Your task to perform on an android device: change keyboard looks Image 0: 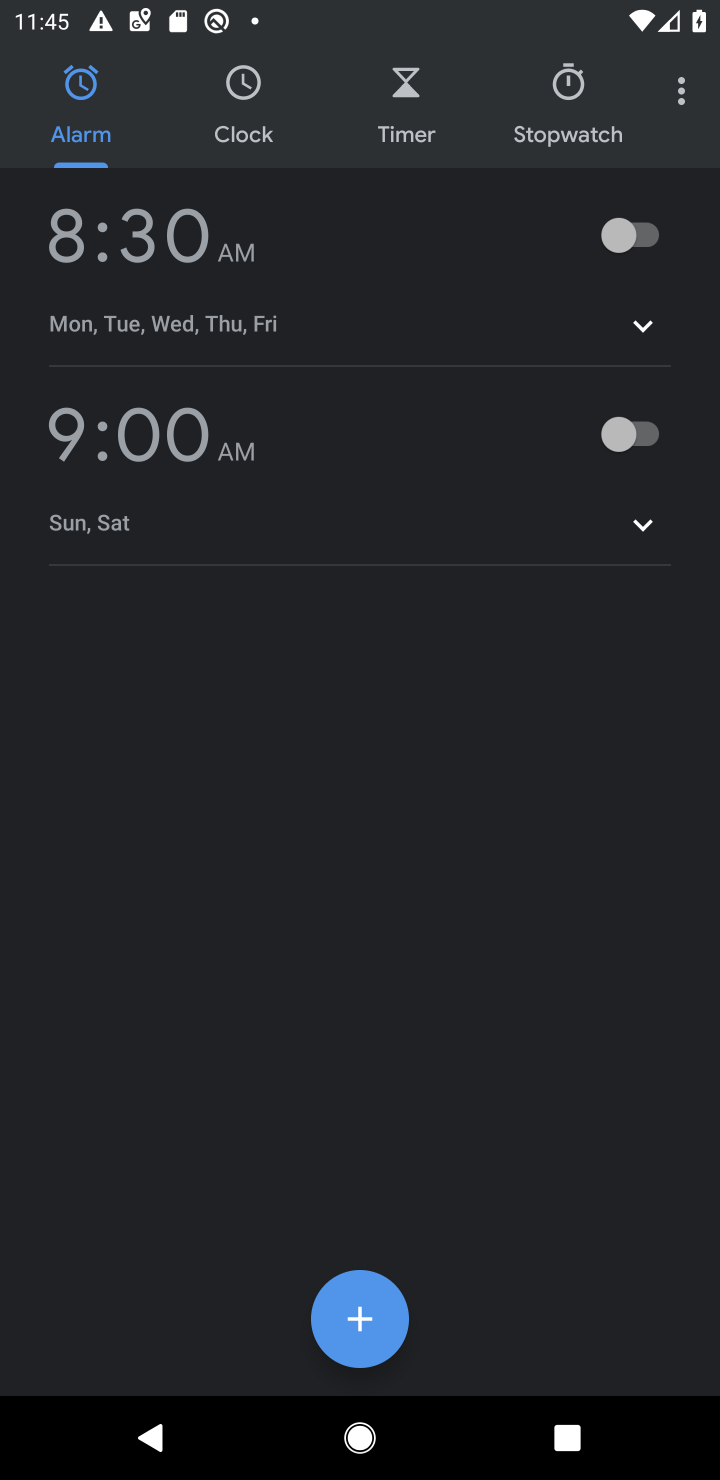
Step 0: press home button
Your task to perform on an android device: change keyboard looks Image 1: 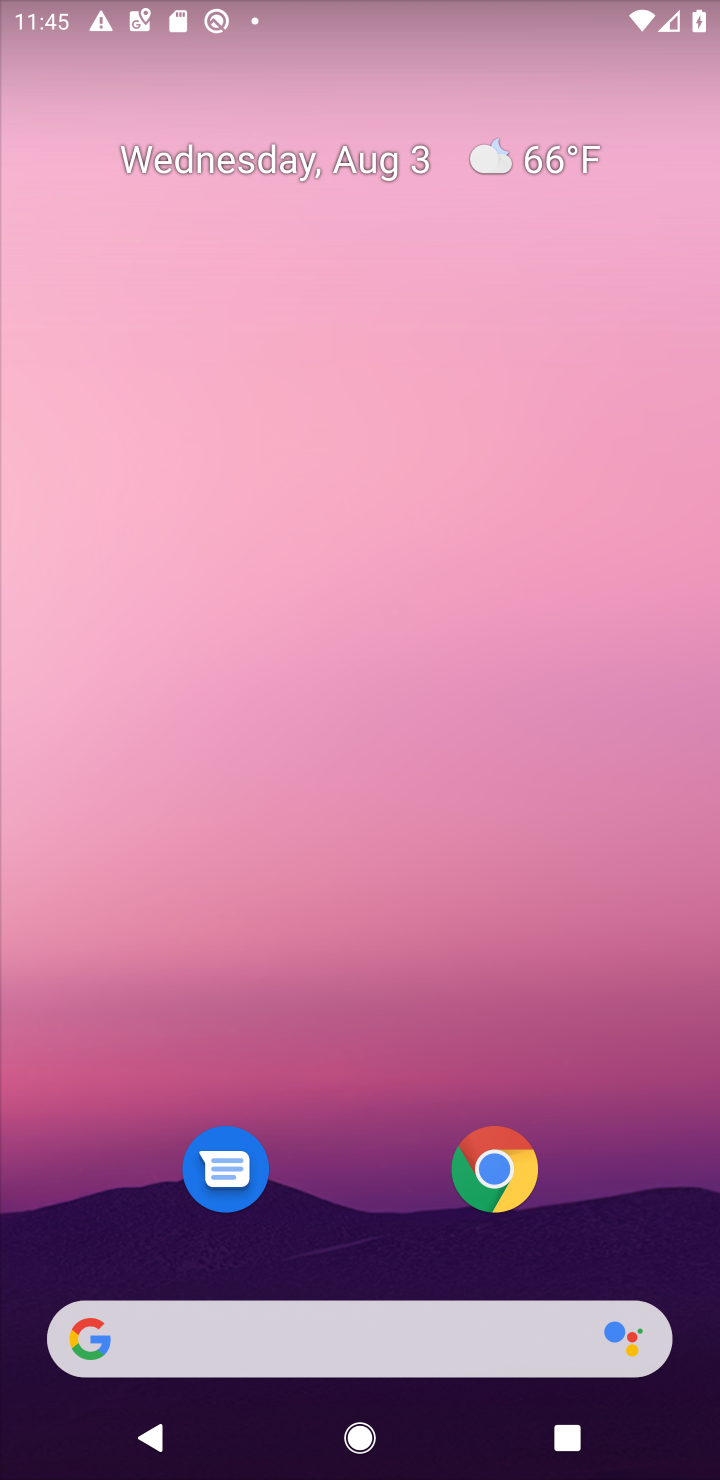
Step 1: drag from (593, 1279) to (628, 0)
Your task to perform on an android device: change keyboard looks Image 2: 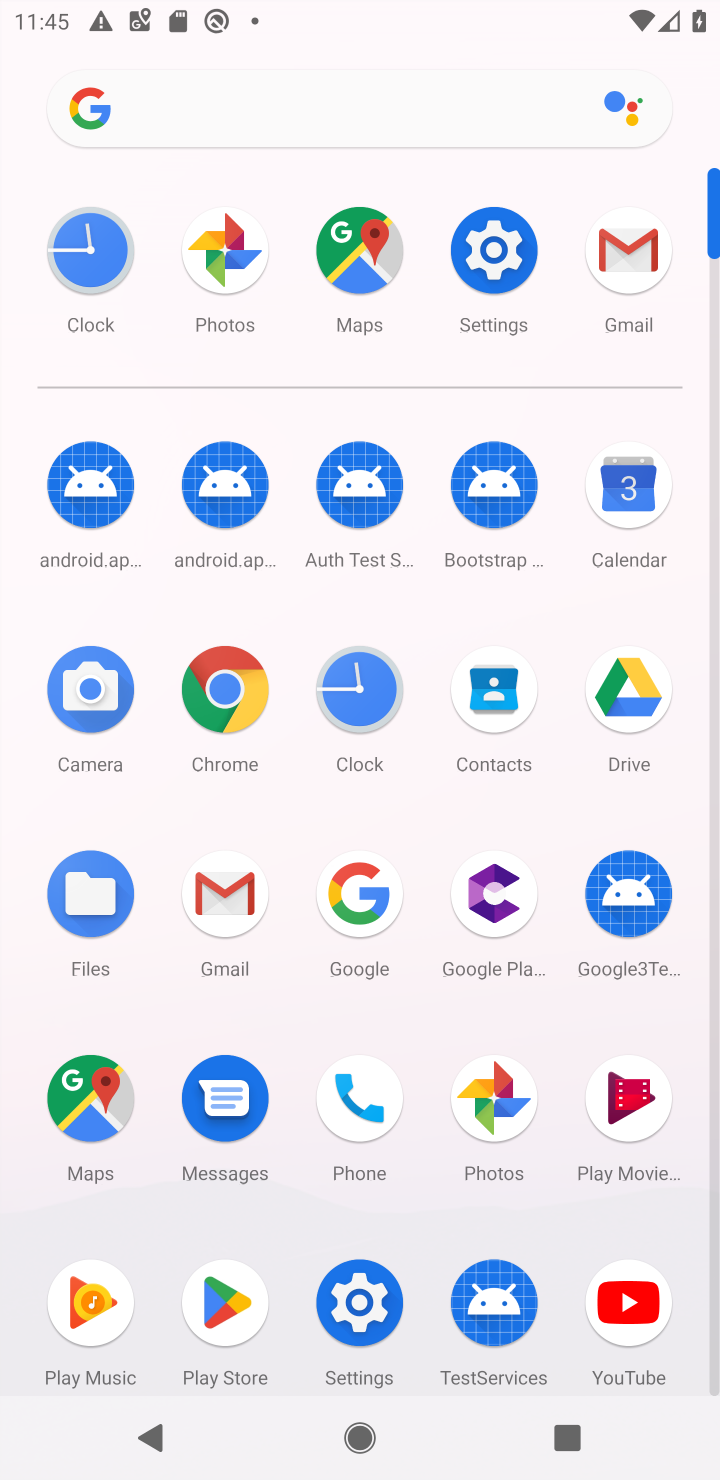
Step 2: click (491, 263)
Your task to perform on an android device: change keyboard looks Image 3: 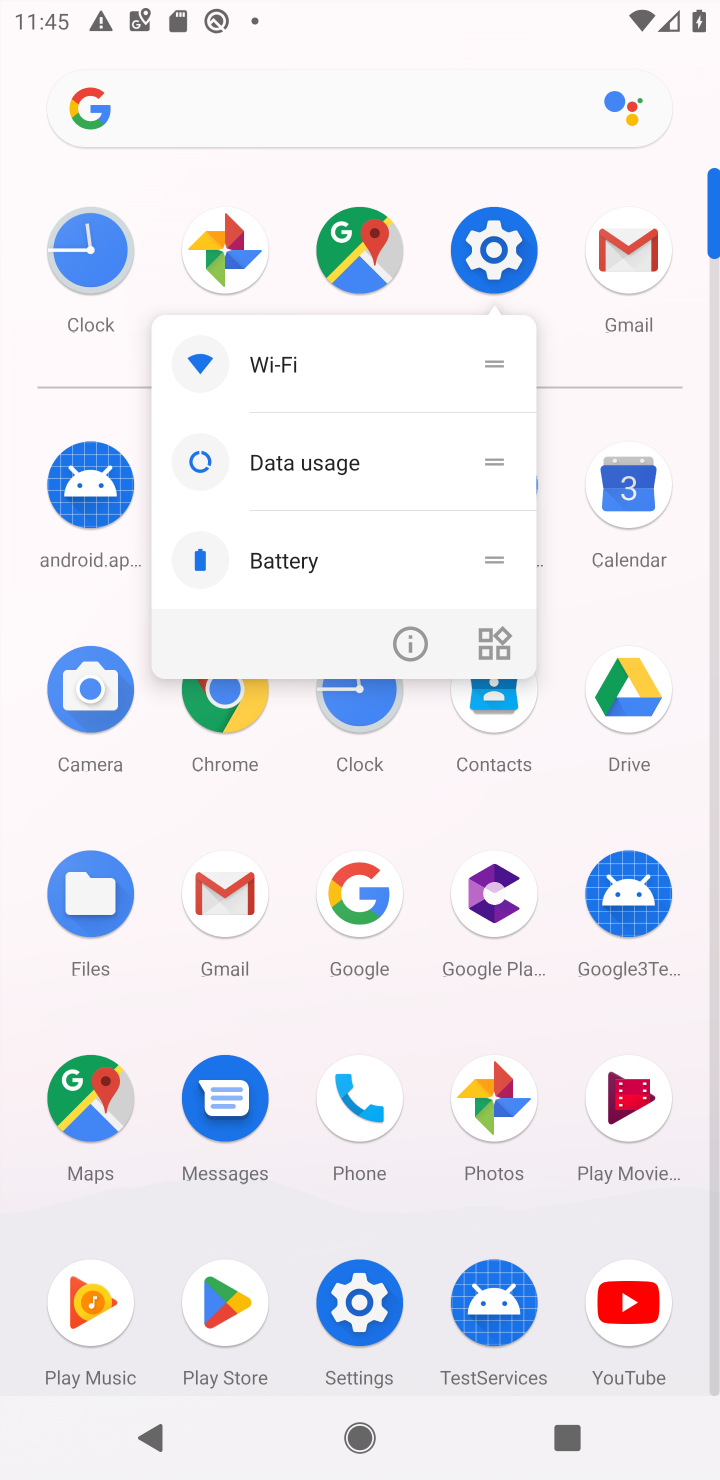
Step 3: click (491, 263)
Your task to perform on an android device: change keyboard looks Image 4: 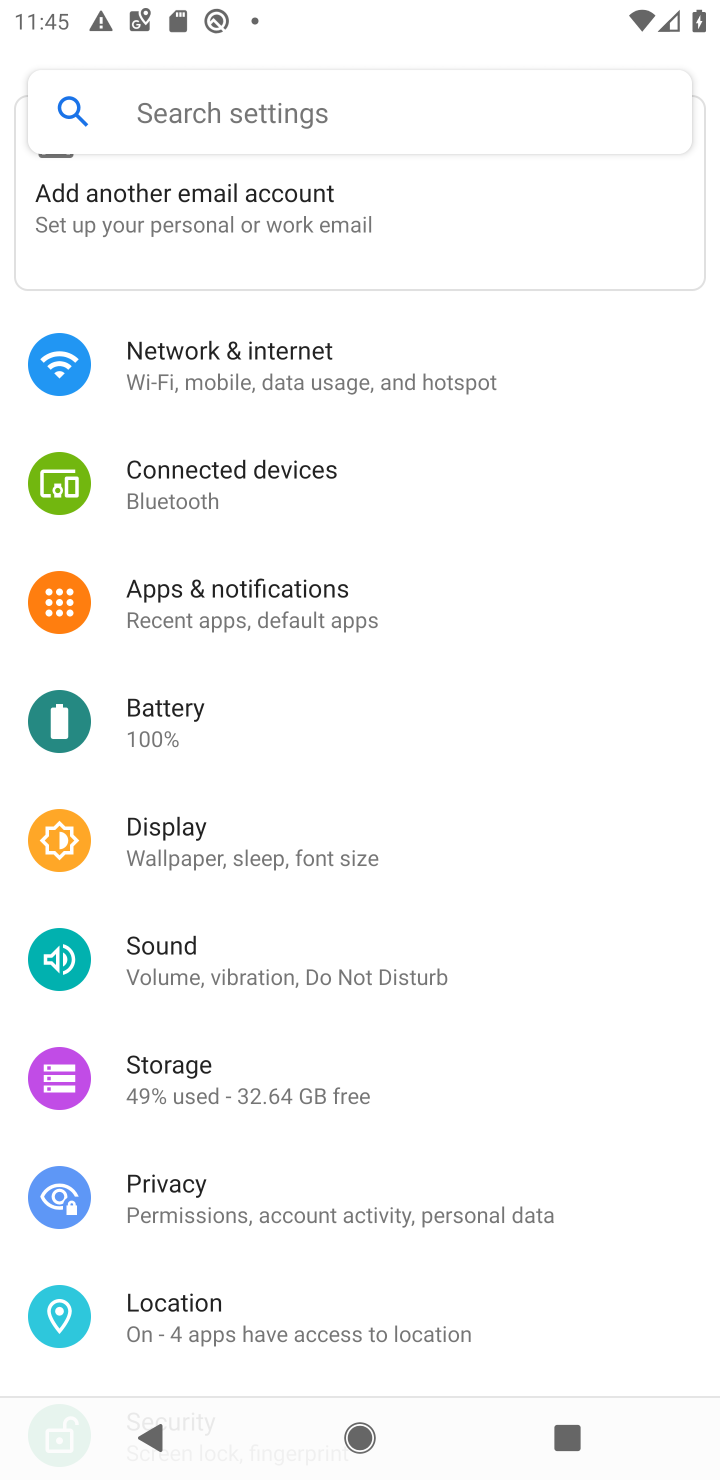
Step 4: drag from (683, 1288) to (714, 388)
Your task to perform on an android device: change keyboard looks Image 5: 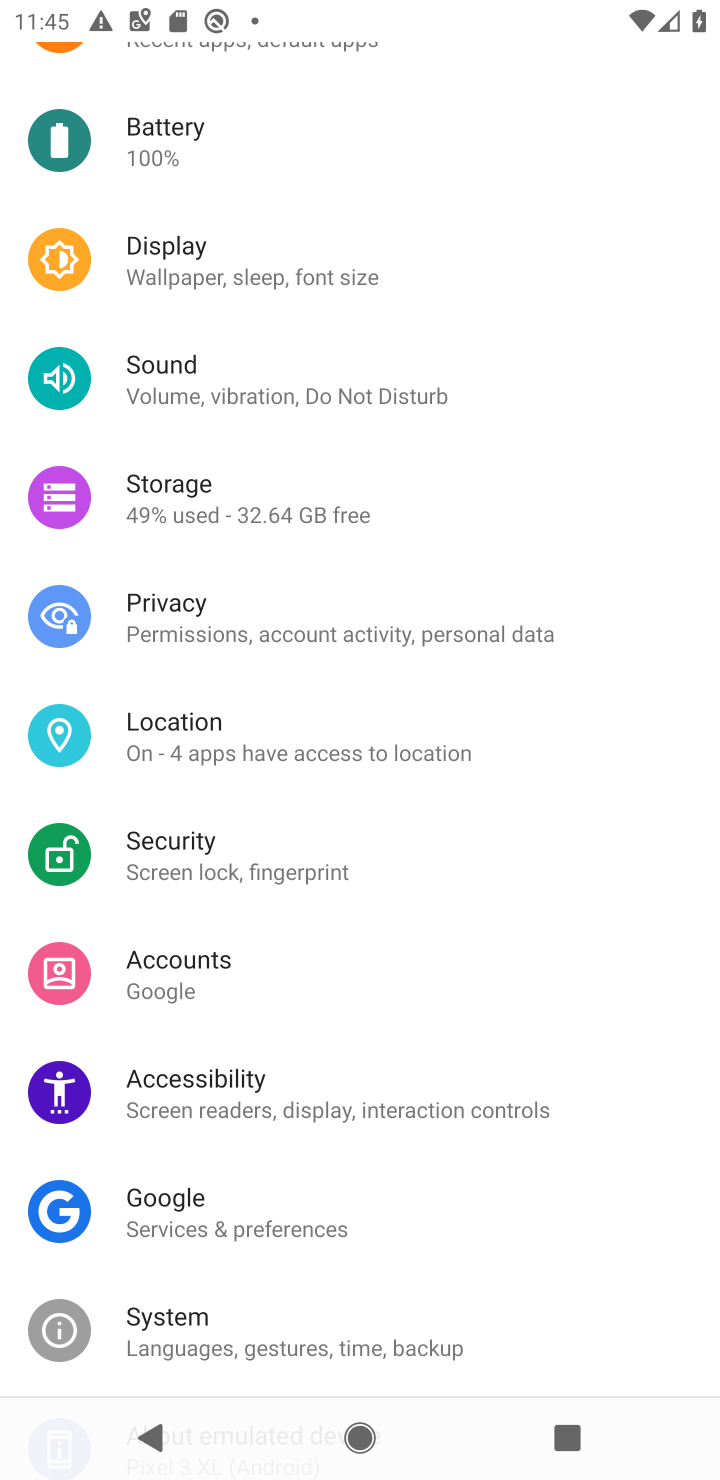
Step 5: click (163, 1348)
Your task to perform on an android device: change keyboard looks Image 6: 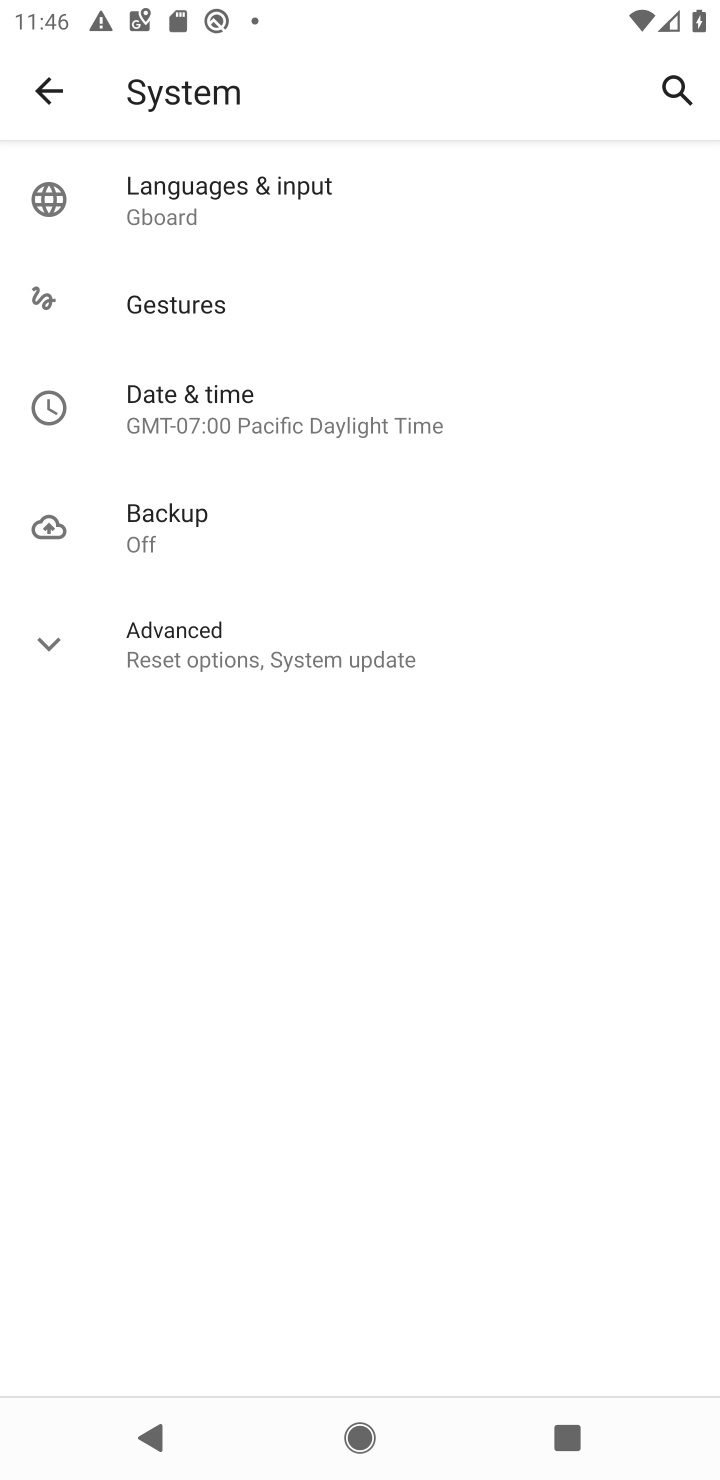
Step 6: click (132, 206)
Your task to perform on an android device: change keyboard looks Image 7: 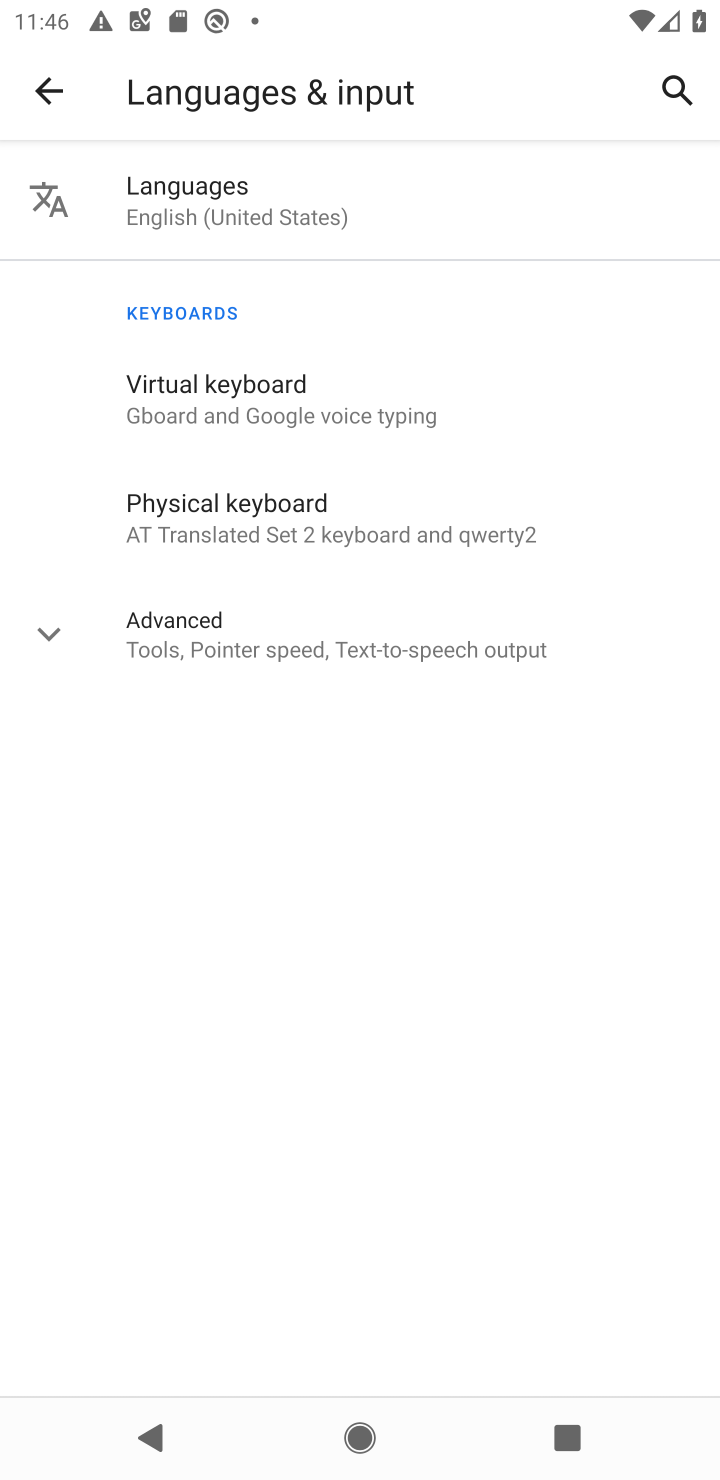
Step 7: click (244, 419)
Your task to perform on an android device: change keyboard looks Image 8: 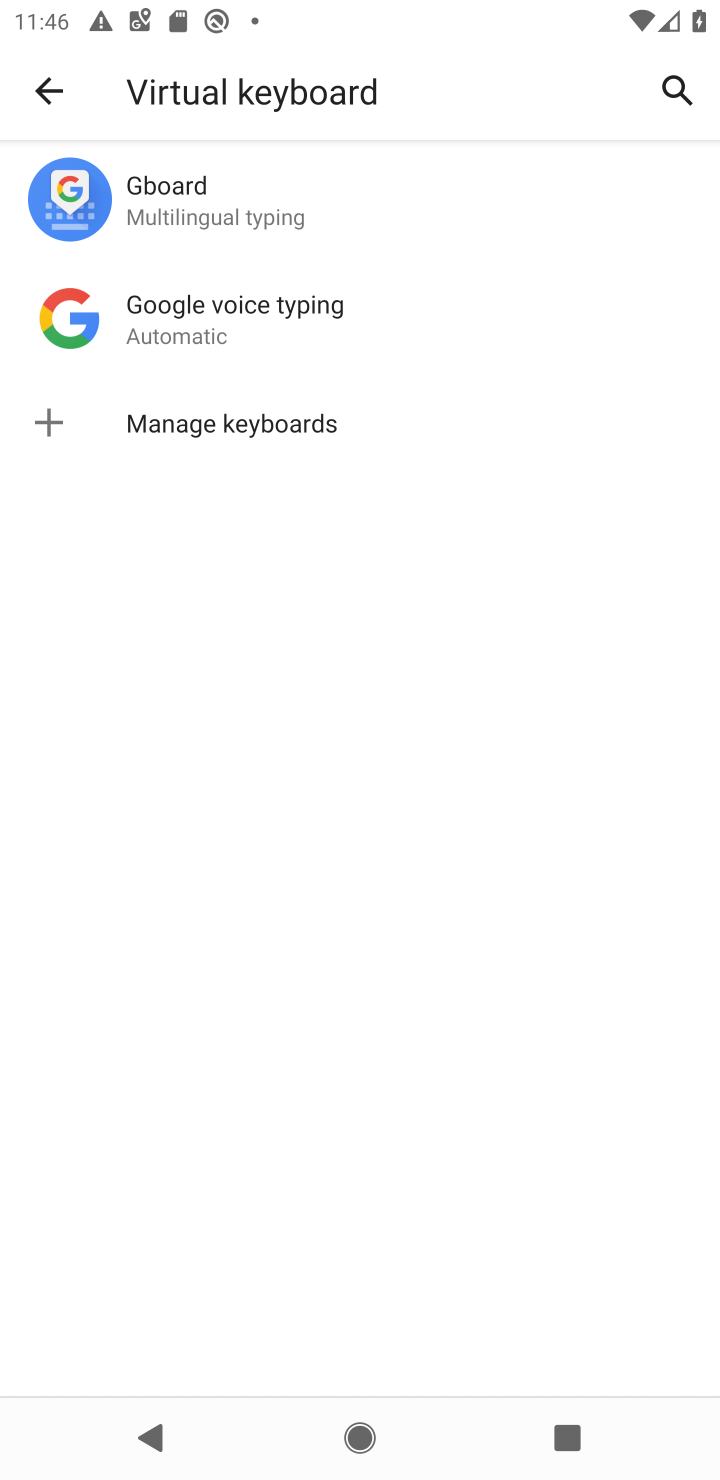
Step 8: click (169, 196)
Your task to perform on an android device: change keyboard looks Image 9: 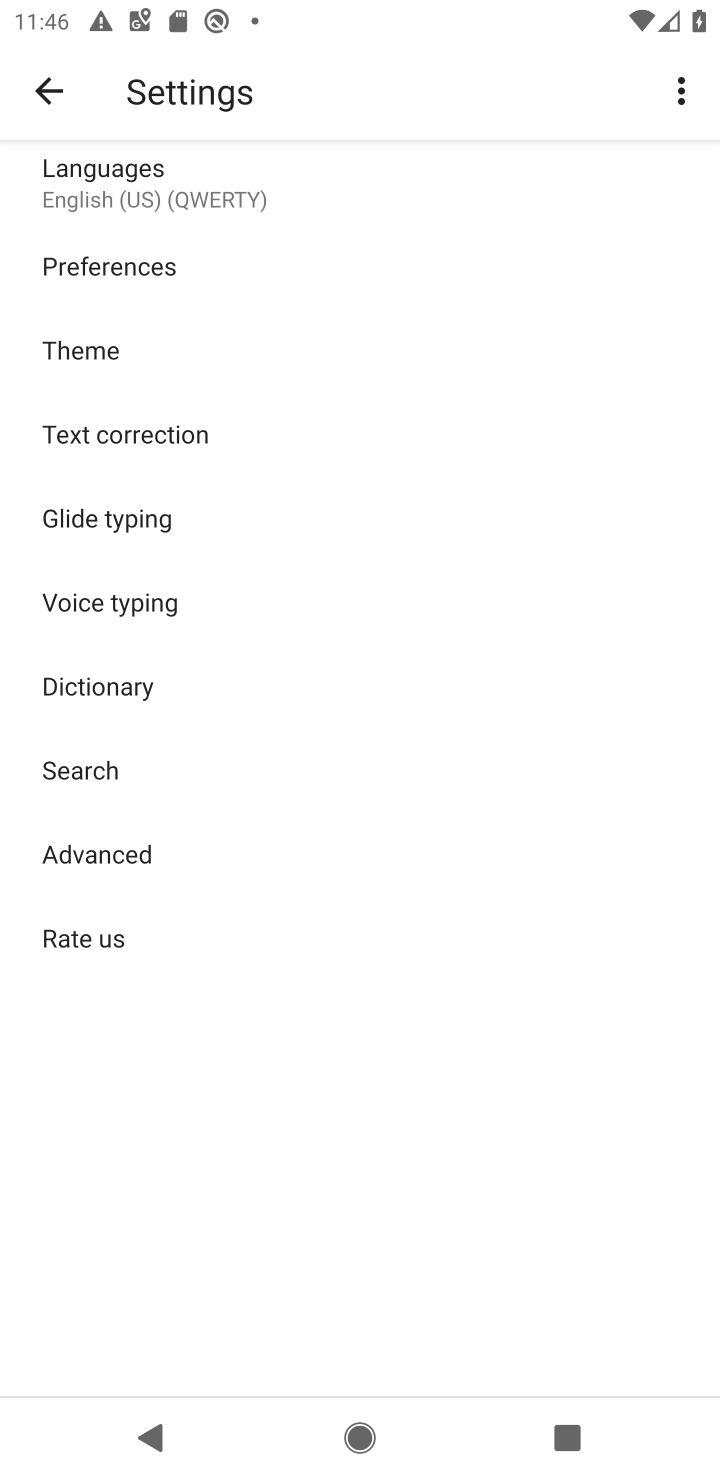
Step 9: click (92, 371)
Your task to perform on an android device: change keyboard looks Image 10: 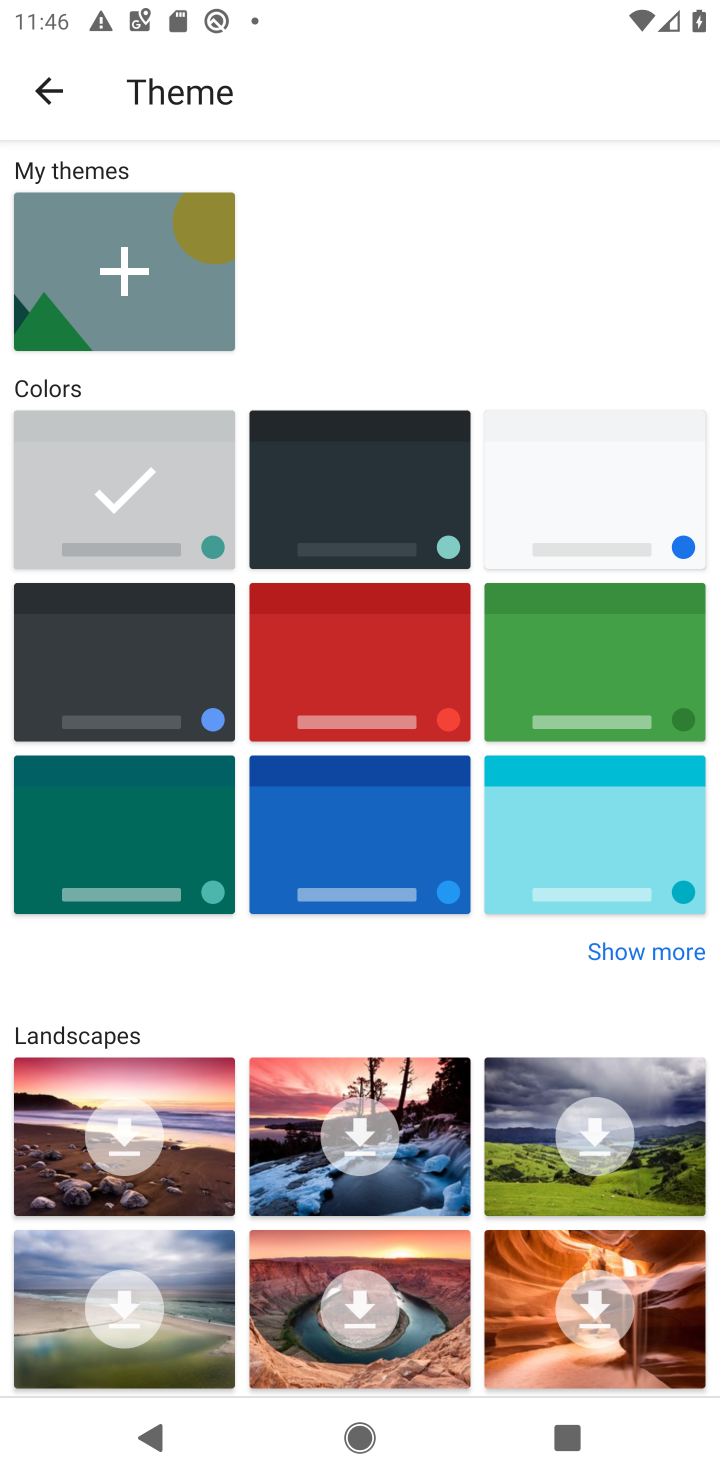
Step 10: click (346, 462)
Your task to perform on an android device: change keyboard looks Image 11: 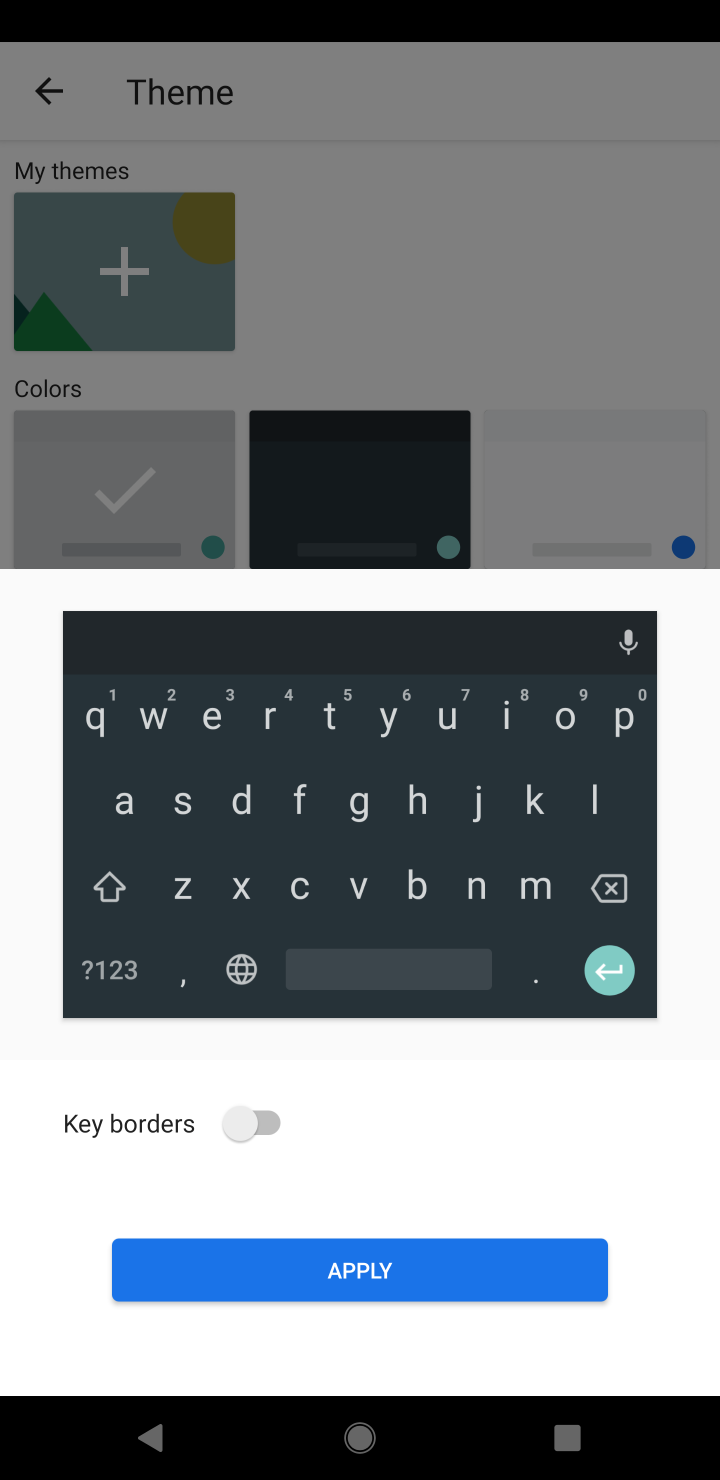
Step 11: click (251, 1129)
Your task to perform on an android device: change keyboard looks Image 12: 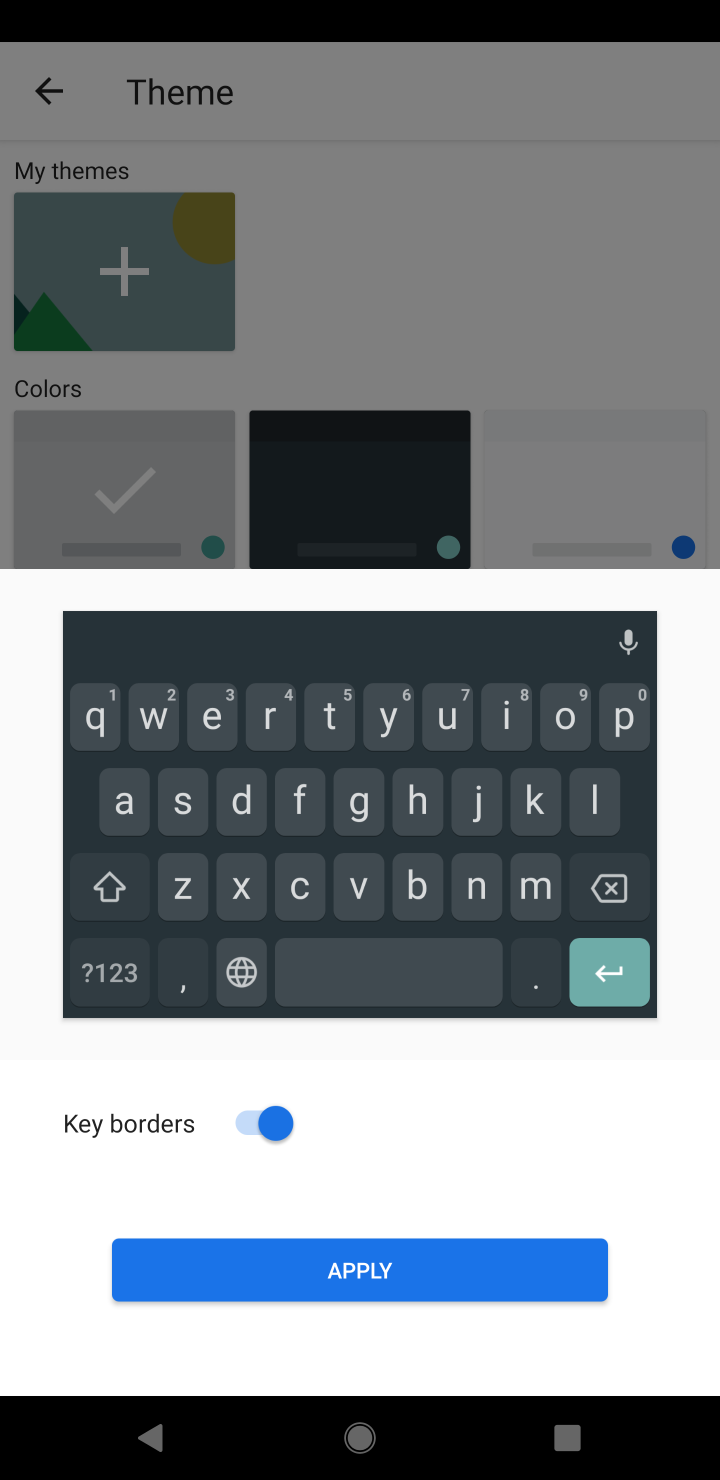
Step 12: click (374, 1272)
Your task to perform on an android device: change keyboard looks Image 13: 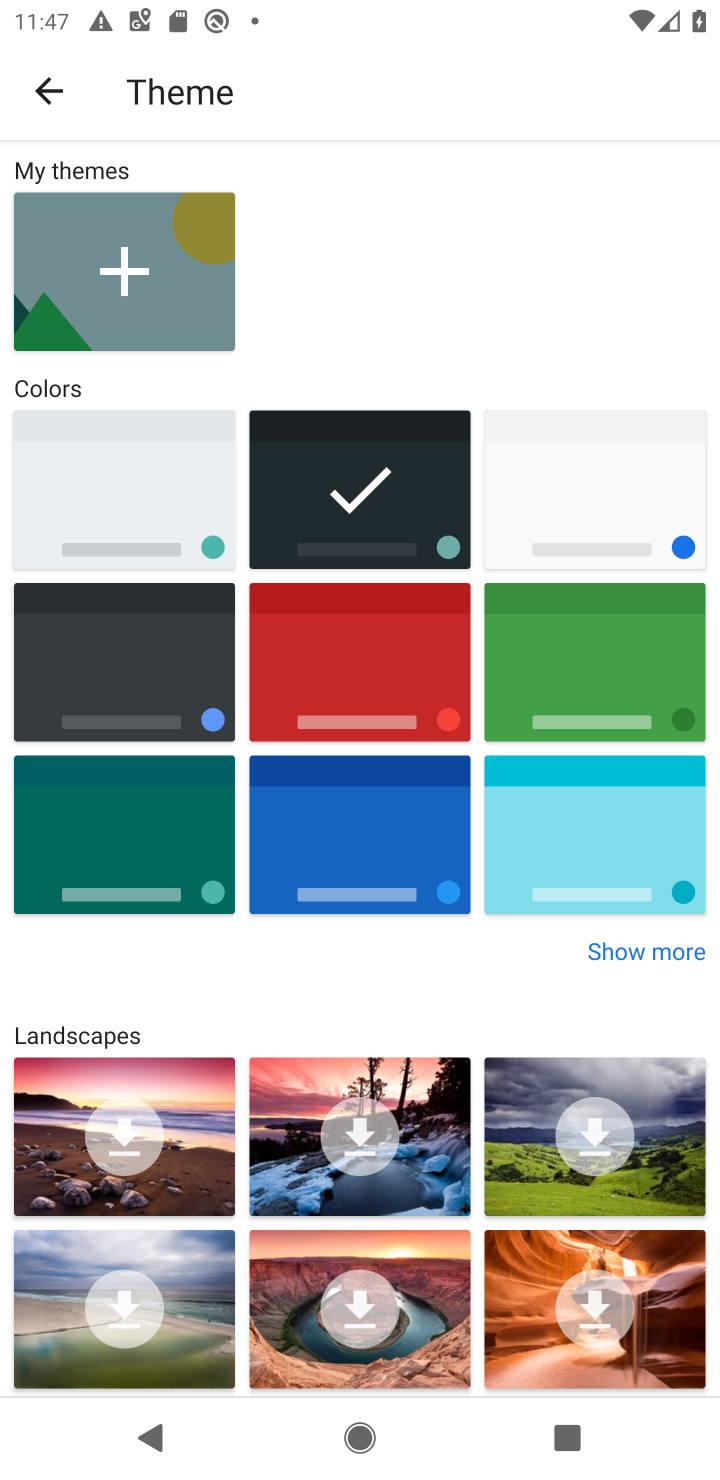
Step 13: task complete